Your task to perform on an android device: all mails in gmail Image 0: 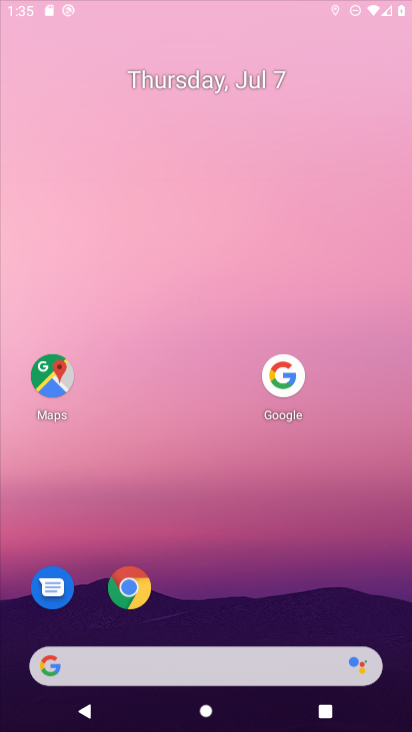
Step 0: click (398, 7)
Your task to perform on an android device: all mails in gmail Image 1: 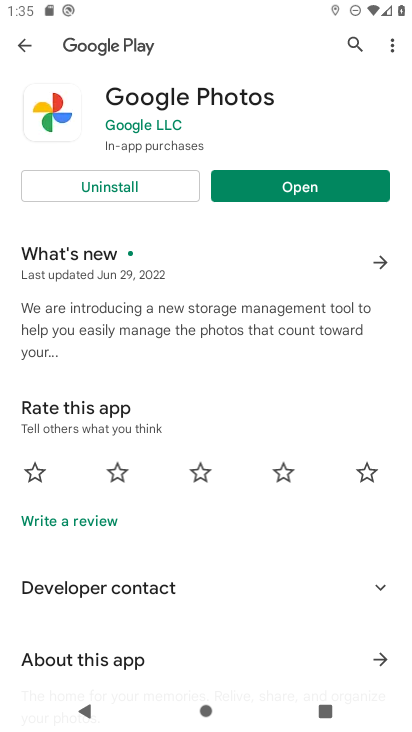
Step 1: press home button
Your task to perform on an android device: all mails in gmail Image 2: 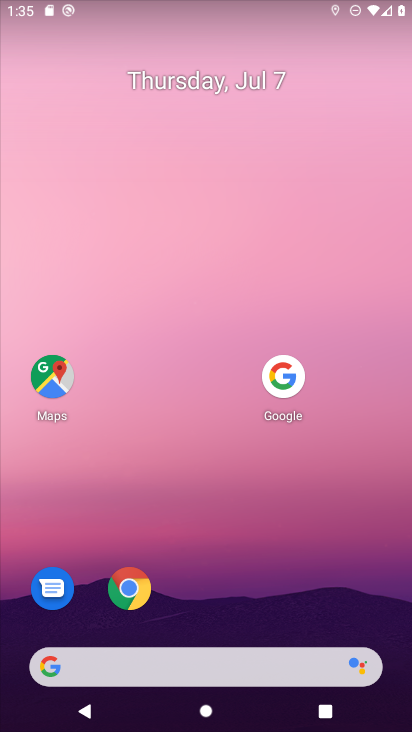
Step 2: drag from (168, 667) to (403, 17)
Your task to perform on an android device: all mails in gmail Image 3: 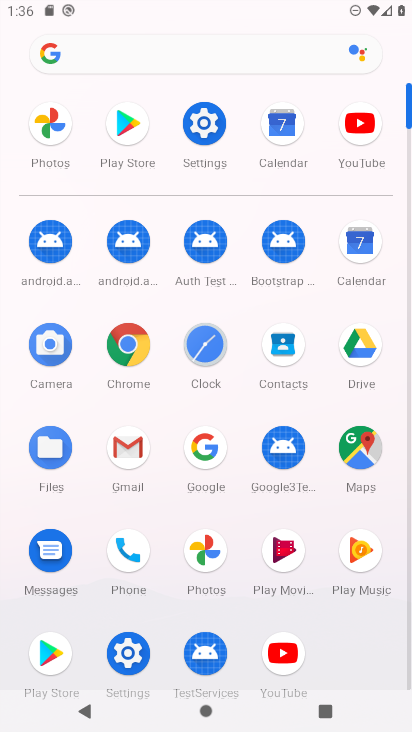
Step 3: click (129, 437)
Your task to perform on an android device: all mails in gmail Image 4: 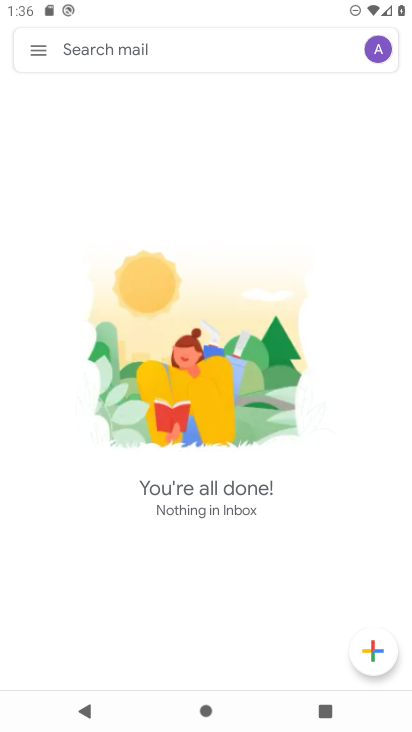
Step 4: click (56, 36)
Your task to perform on an android device: all mails in gmail Image 5: 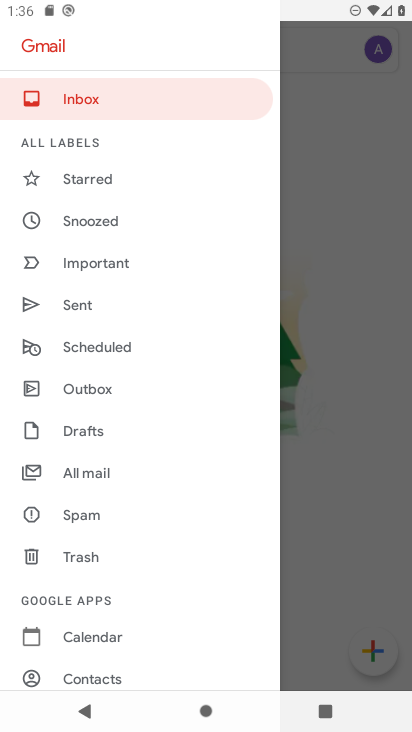
Step 5: click (100, 464)
Your task to perform on an android device: all mails in gmail Image 6: 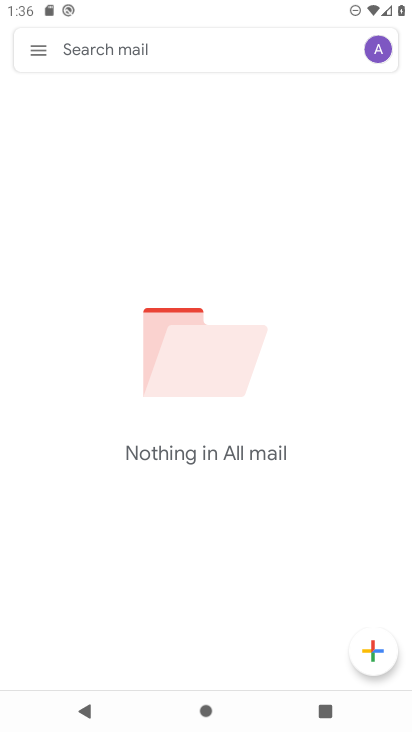
Step 6: task complete